Your task to perform on an android device: Go to Android settings Image 0: 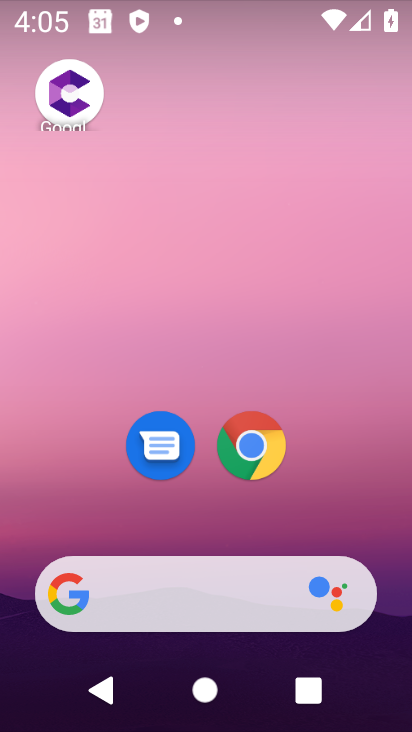
Step 0: drag from (147, 711) to (137, 13)
Your task to perform on an android device: Go to Android settings Image 1: 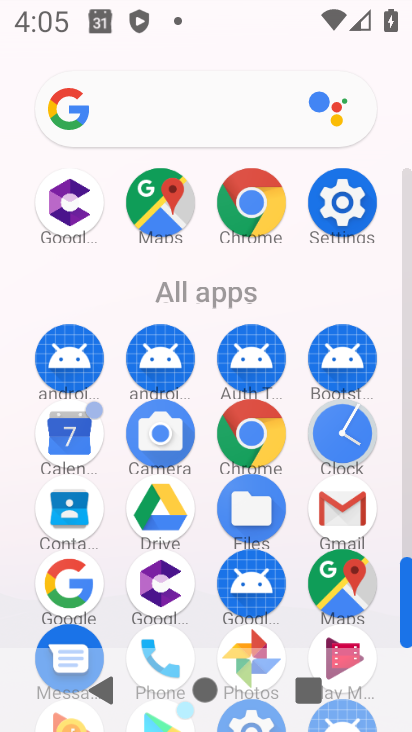
Step 1: click (342, 211)
Your task to perform on an android device: Go to Android settings Image 2: 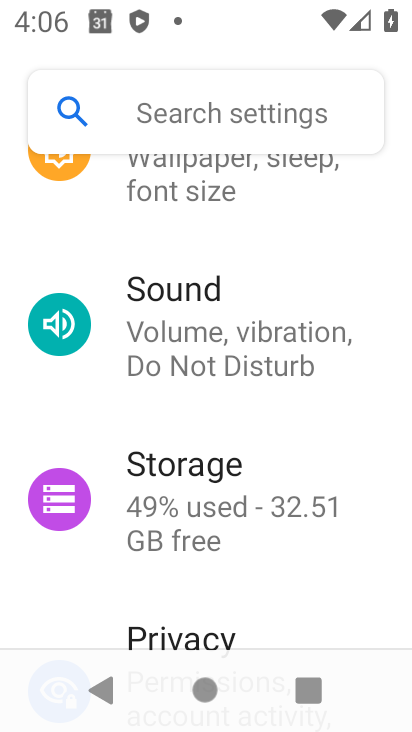
Step 2: task complete